Your task to perform on an android device: What's the price of the 2x4x8 boards at Home Depot? Image 0: 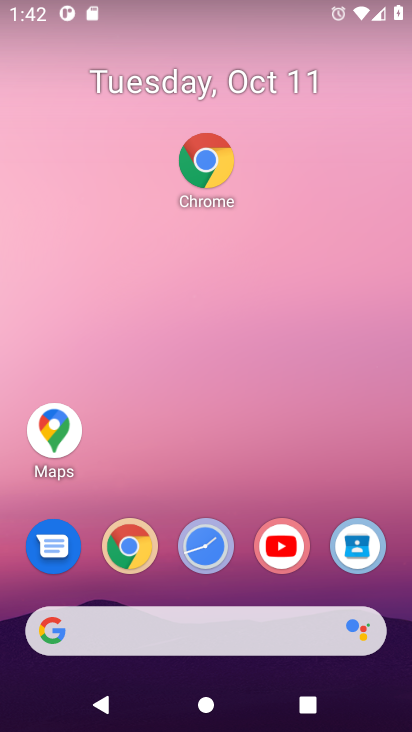
Step 0: click (130, 558)
Your task to perform on an android device: What's the price of the 2x4x8 boards at Home Depot? Image 1: 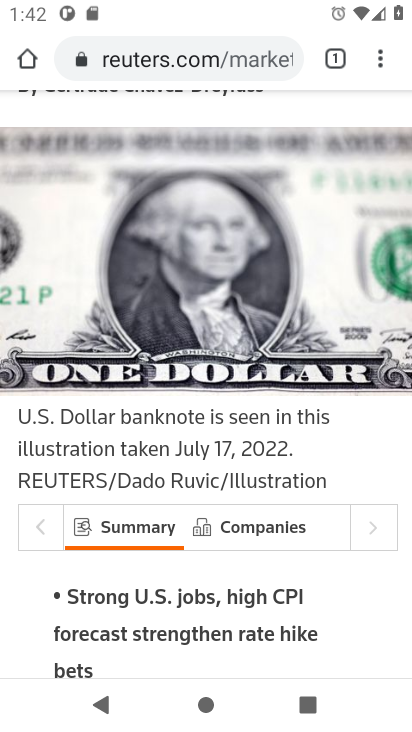
Step 1: click (263, 60)
Your task to perform on an android device: What's the price of the 2x4x8 boards at Home Depot? Image 2: 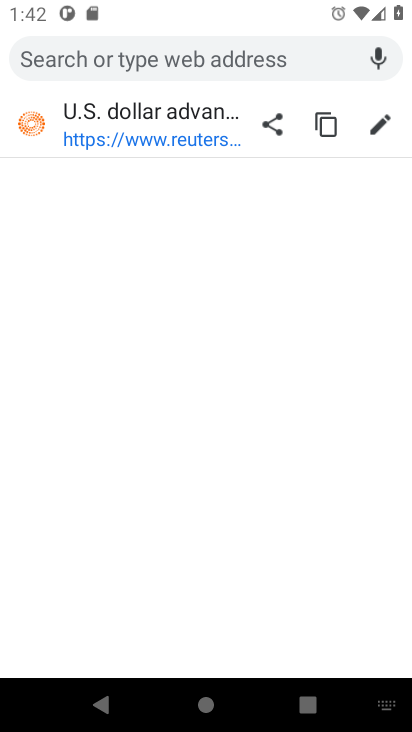
Step 2: type "Home depot"
Your task to perform on an android device: What's the price of the 2x4x8 boards at Home Depot? Image 3: 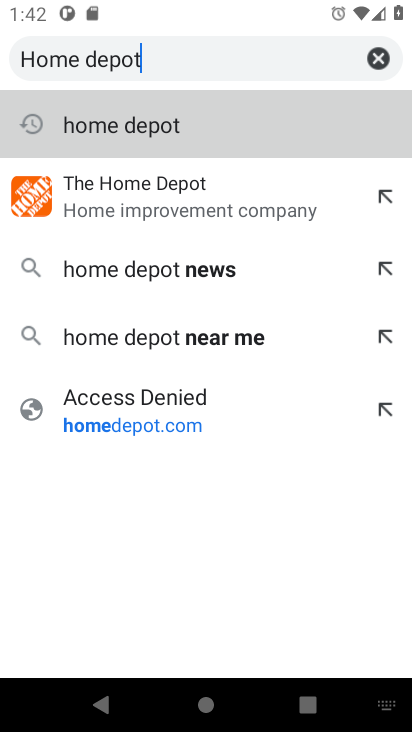
Step 3: type ""
Your task to perform on an android device: What's the price of the 2x4x8 boards at Home Depot? Image 4: 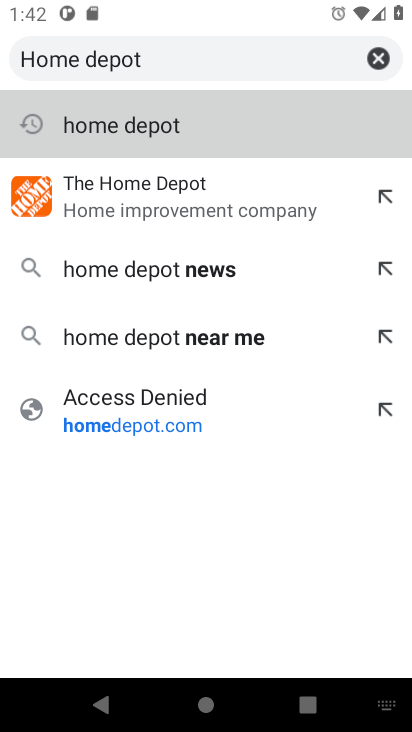
Step 4: press enter
Your task to perform on an android device: What's the price of the 2x4x8 boards at Home Depot? Image 5: 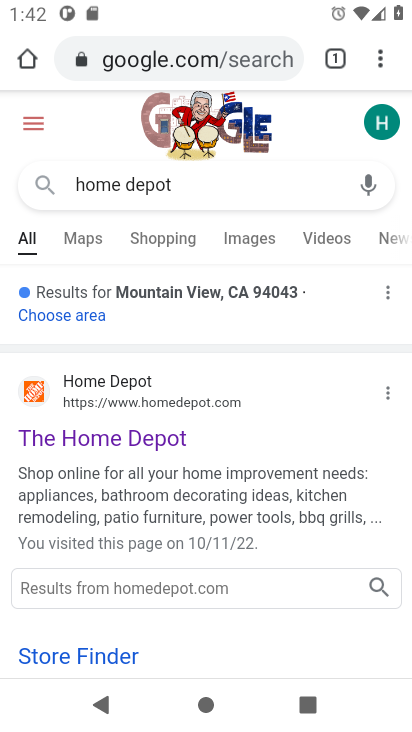
Step 5: click (140, 440)
Your task to perform on an android device: What's the price of the 2x4x8 boards at Home Depot? Image 6: 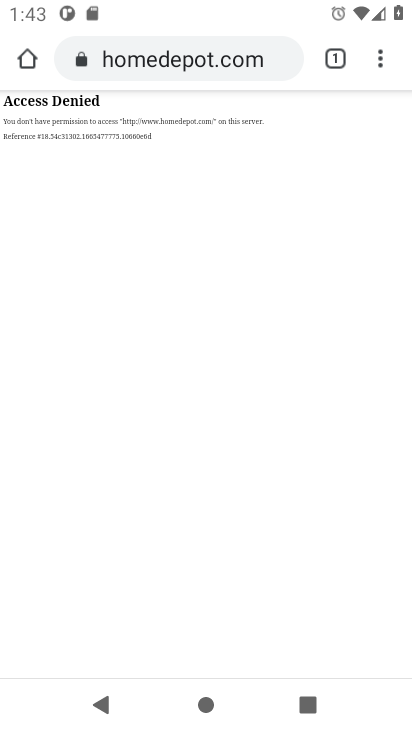
Step 6: press back button
Your task to perform on an android device: What's the price of the 2x4x8 boards at Home Depot? Image 7: 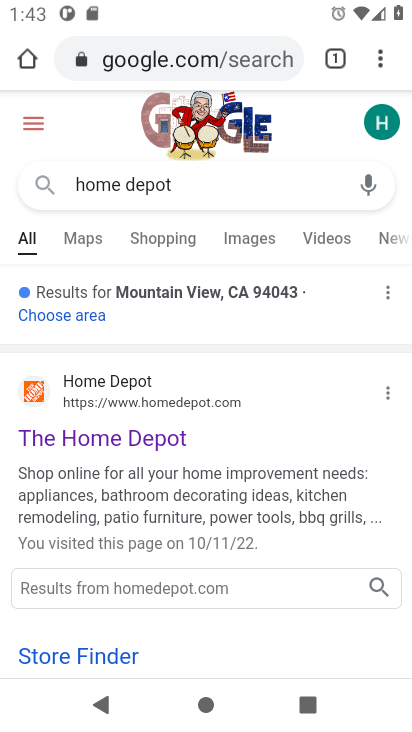
Step 7: press back button
Your task to perform on an android device: What's the price of the 2x4x8 boards at Home Depot? Image 8: 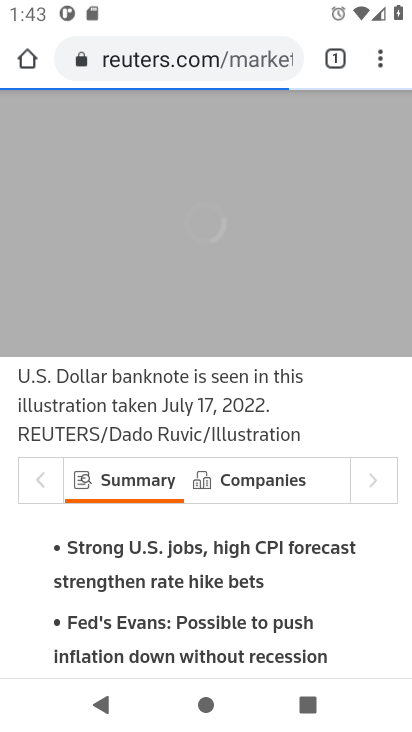
Step 8: press back button
Your task to perform on an android device: What's the price of the 2x4x8 boards at Home Depot? Image 9: 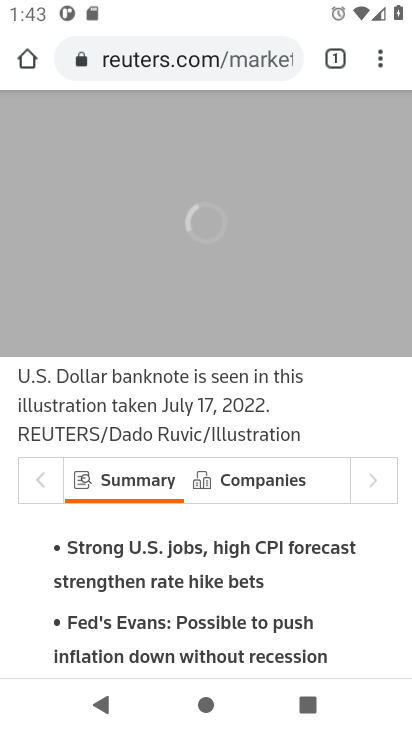
Step 9: press back button
Your task to perform on an android device: What's the price of the 2x4x8 boards at Home Depot? Image 10: 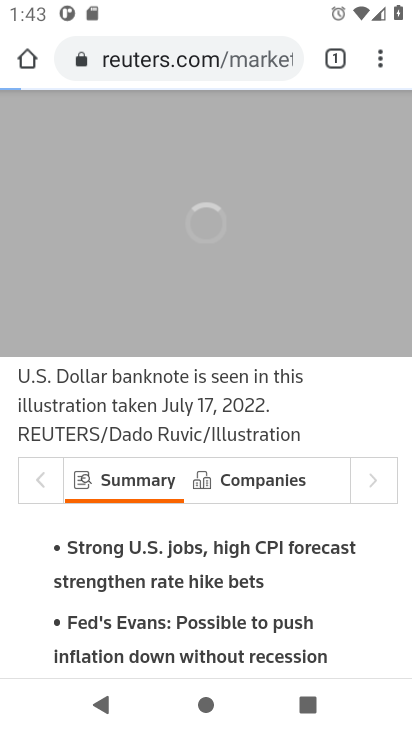
Step 10: click (336, 53)
Your task to perform on an android device: What's the price of the 2x4x8 boards at Home Depot? Image 11: 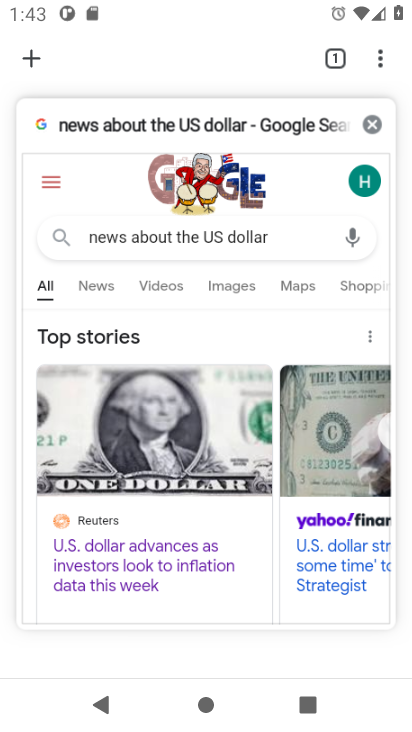
Step 11: click (375, 127)
Your task to perform on an android device: What's the price of the 2x4x8 boards at Home Depot? Image 12: 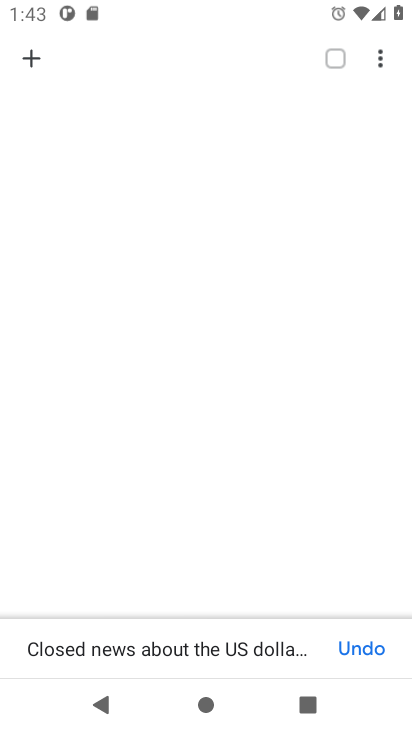
Step 12: click (384, 58)
Your task to perform on an android device: What's the price of the 2x4x8 boards at Home Depot? Image 13: 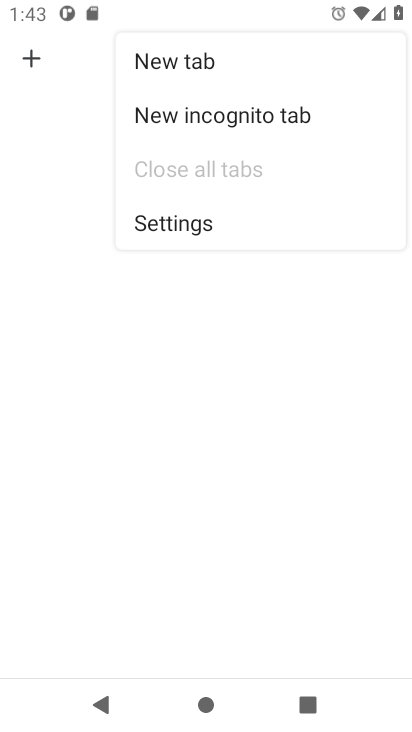
Step 13: click (190, 64)
Your task to perform on an android device: What's the price of the 2x4x8 boards at Home Depot? Image 14: 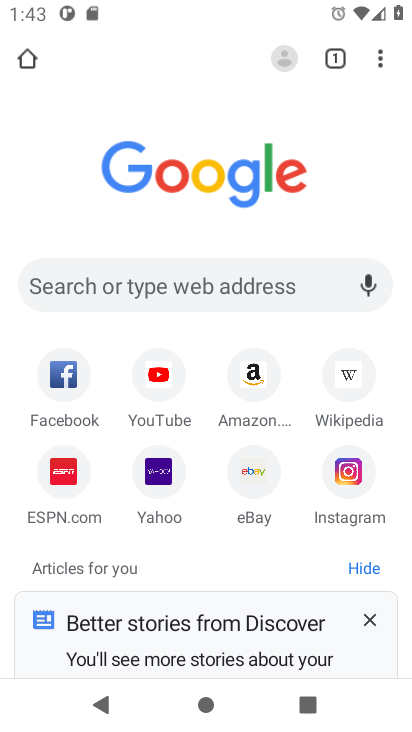
Step 14: click (201, 295)
Your task to perform on an android device: What's the price of the 2x4x8 boards at Home Depot? Image 15: 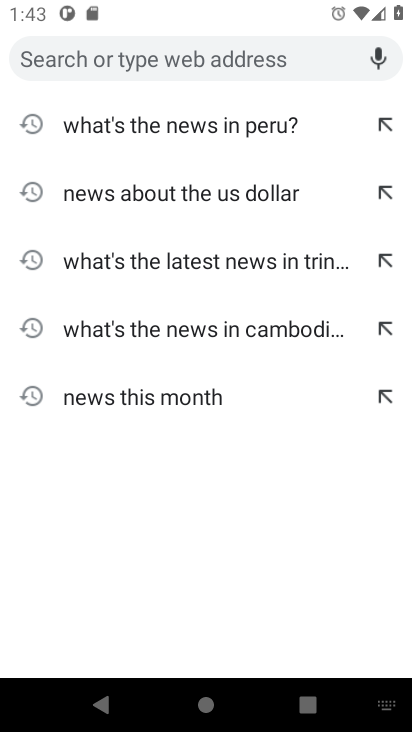
Step 15: type "home depot"
Your task to perform on an android device: What's the price of the 2x4x8 boards at Home Depot? Image 16: 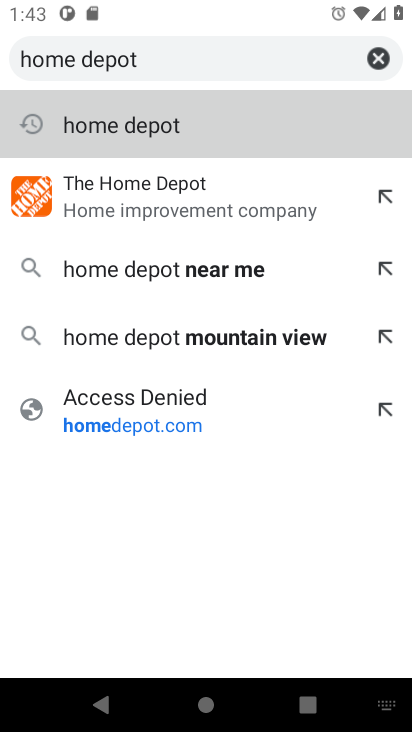
Step 16: press enter
Your task to perform on an android device: What's the price of the 2x4x8 boards at Home Depot? Image 17: 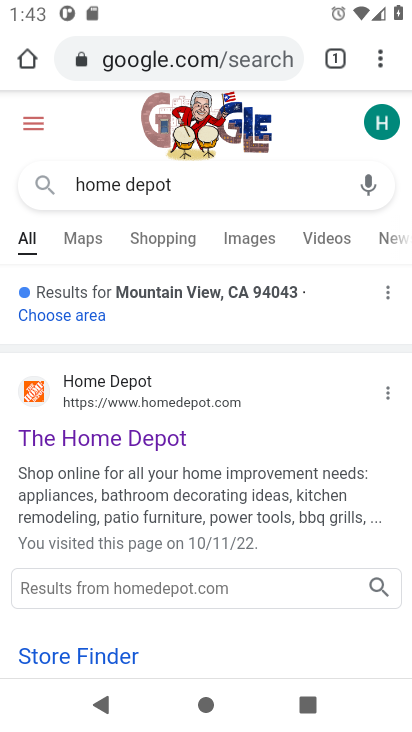
Step 17: click (126, 443)
Your task to perform on an android device: What's the price of the 2x4x8 boards at Home Depot? Image 18: 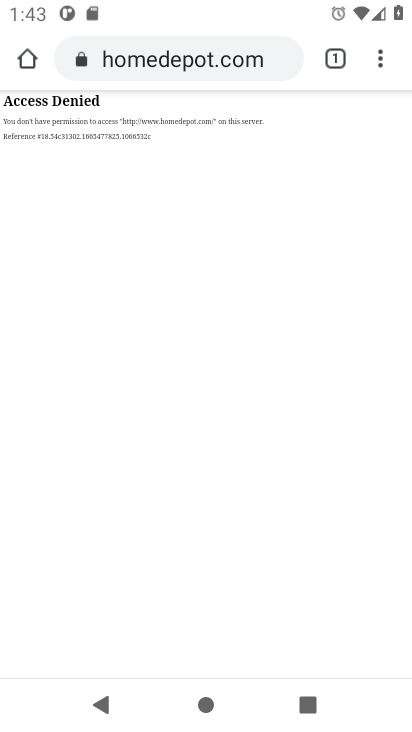
Step 18: task complete